Your task to perform on an android device: Open Android settings Image 0: 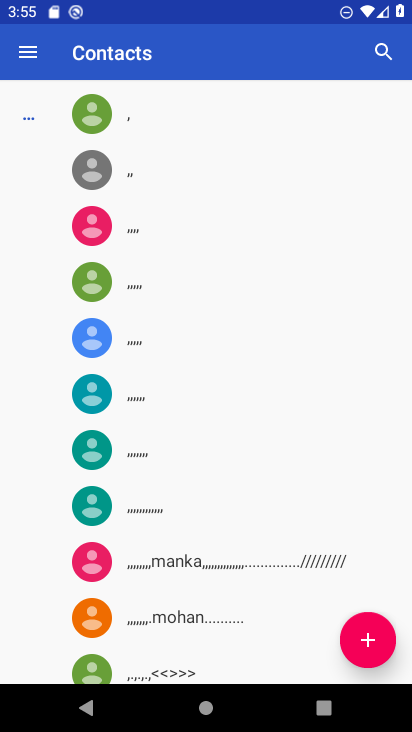
Step 0: press home button
Your task to perform on an android device: Open Android settings Image 1: 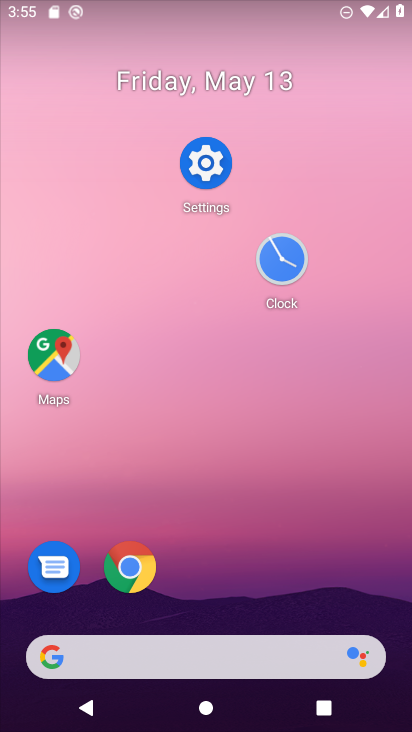
Step 1: click (215, 179)
Your task to perform on an android device: Open Android settings Image 2: 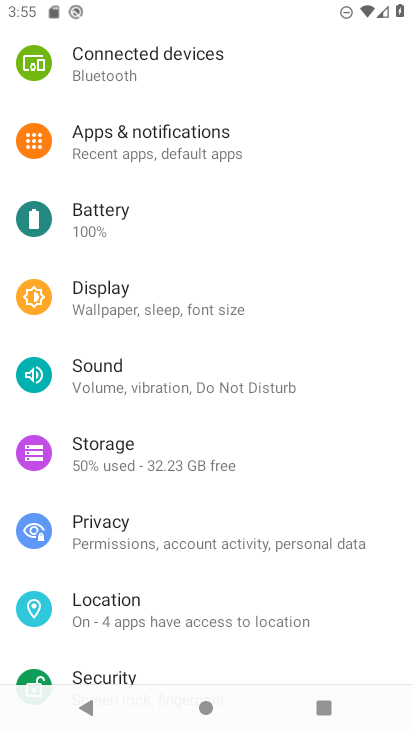
Step 2: task complete